Your task to perform on an android device: Open Wikipedia Image 0: 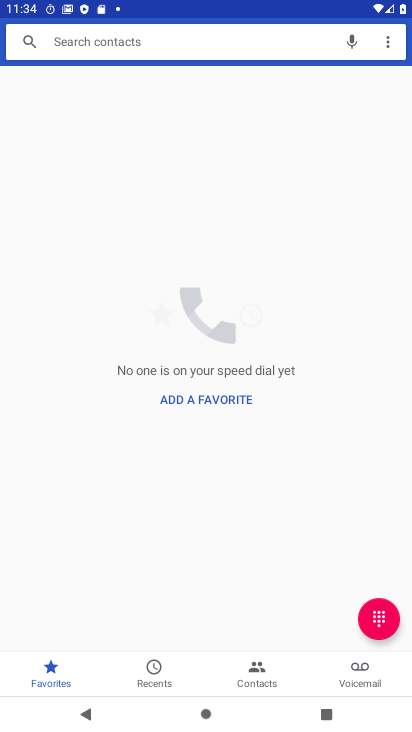
Step 0: press back button
Your task to perform on an android device: Open Wikipedia Image 1: 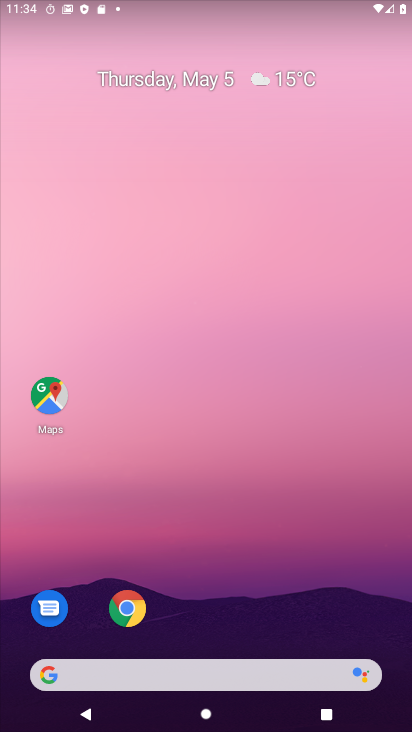
Step 1: drag from (241, 535) to (244, 28)
Your task to perform on an android device: Open Wikipedia Image 2: 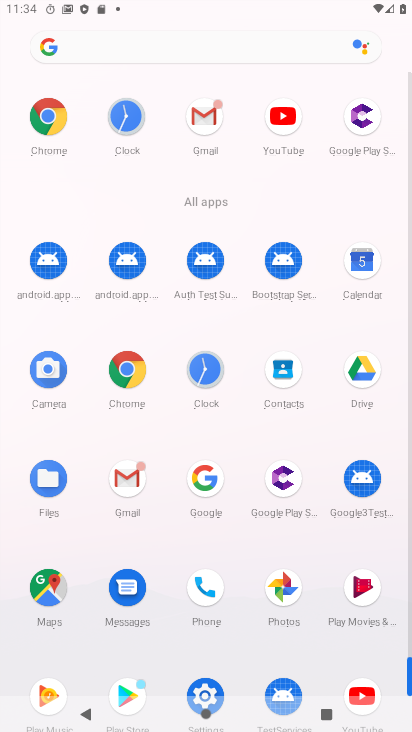
Step 2: click (48, 114)
Your task to perform on an android device: Open Wikipedia Image 3: 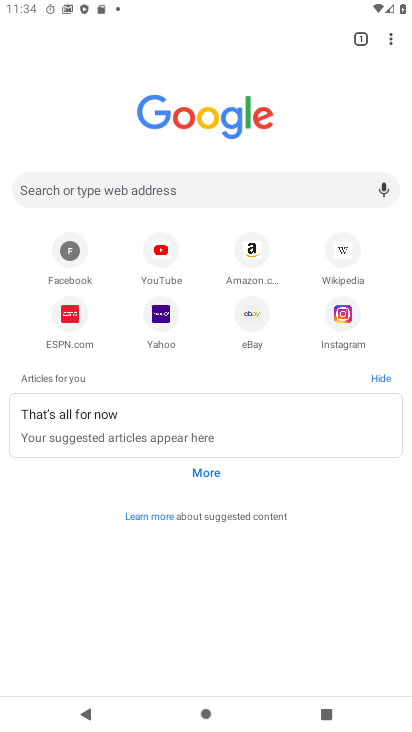
Step 3: click (349, 241)
Your task to perform on an android device: Open Wikipedia Image 4: 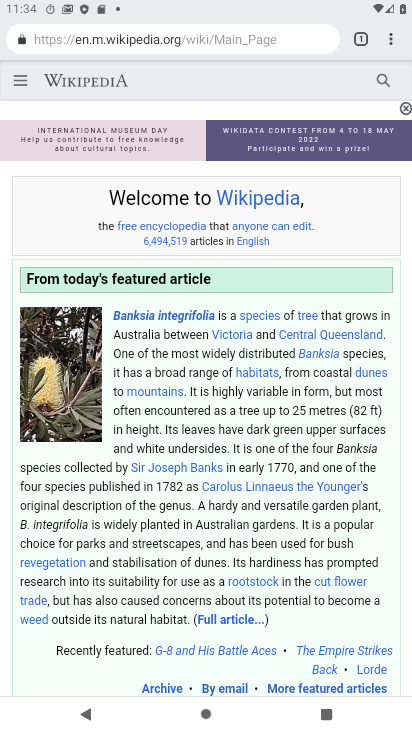
Step 4: task complete